Your task to perform on an android device: toggle translation in the chrome app Image 0: 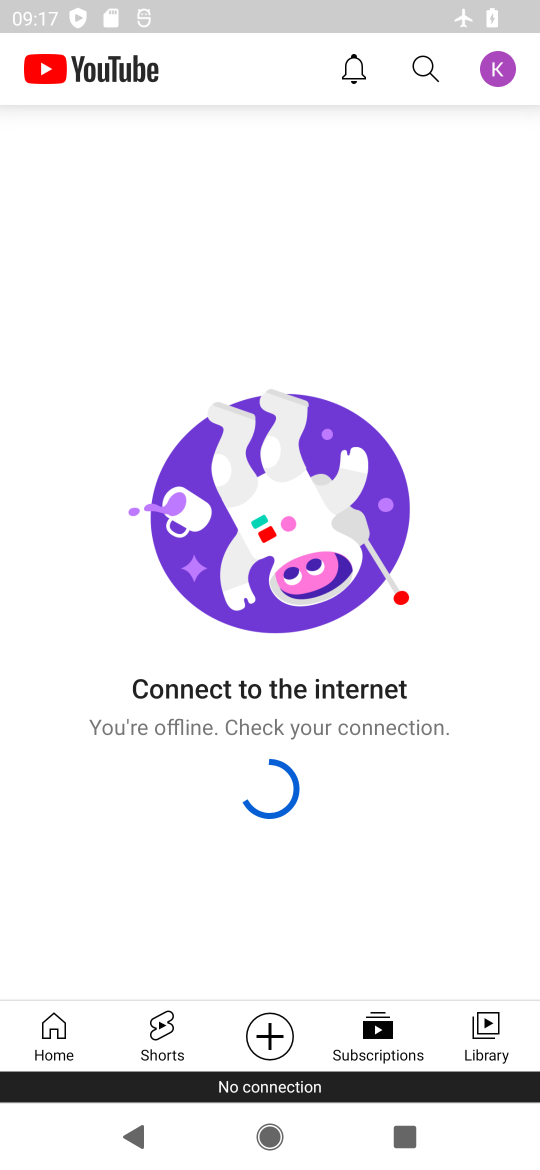
Step 0: press home button
Your task to perform on an android device: toggle translation in the chrome app Image 1: 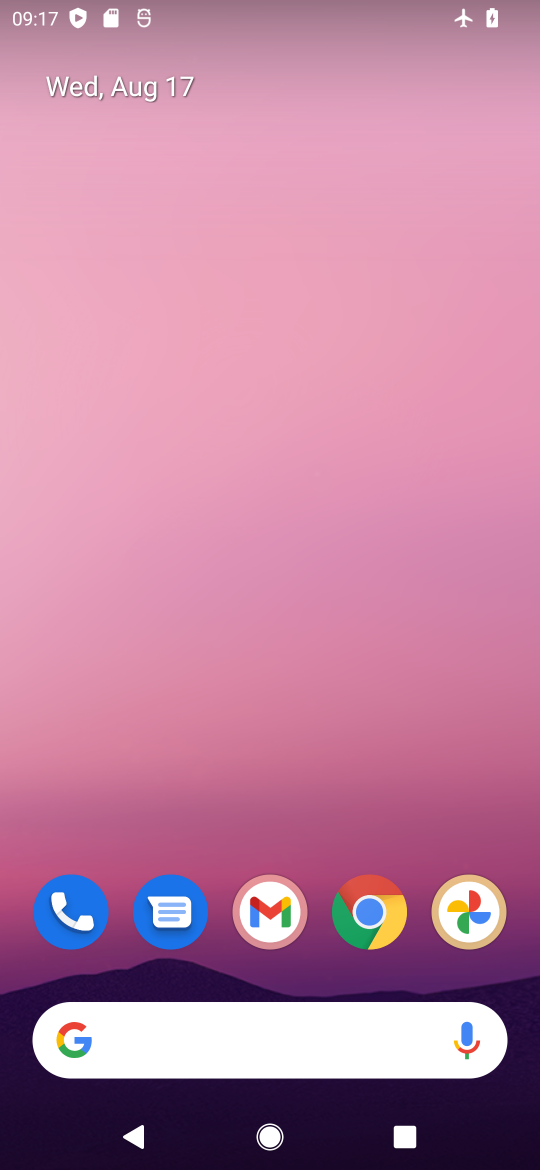
Step 1: drag from (188, 1004) to (174, 185)
Your task to perform on an android device: toggle translation in the chrome app Image 2: 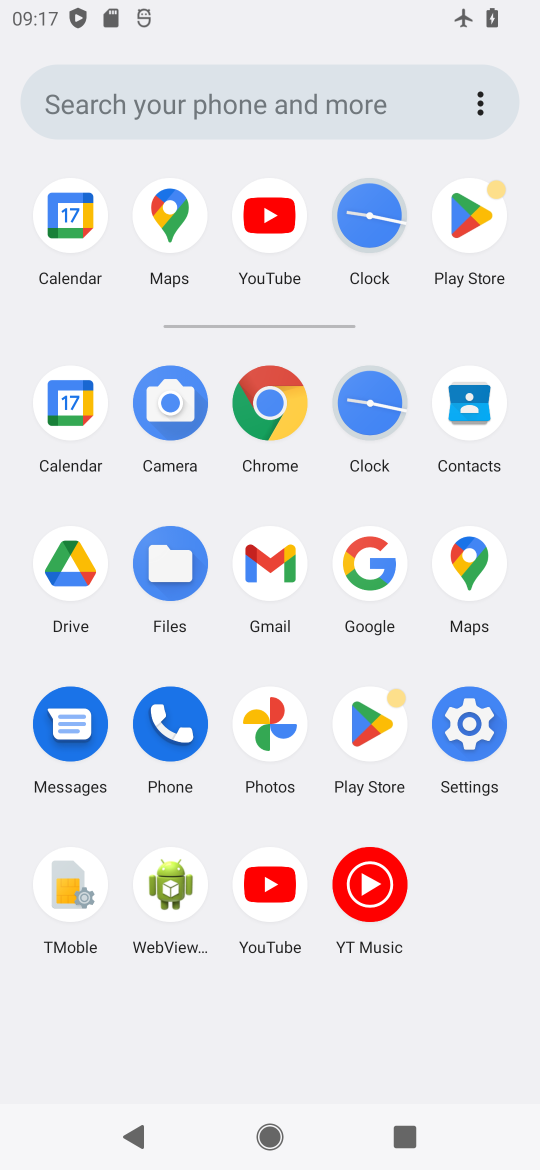
Step 2: click (269, 411)
Your task to perform on an android device: toggle translation in the chrome app Image 3: 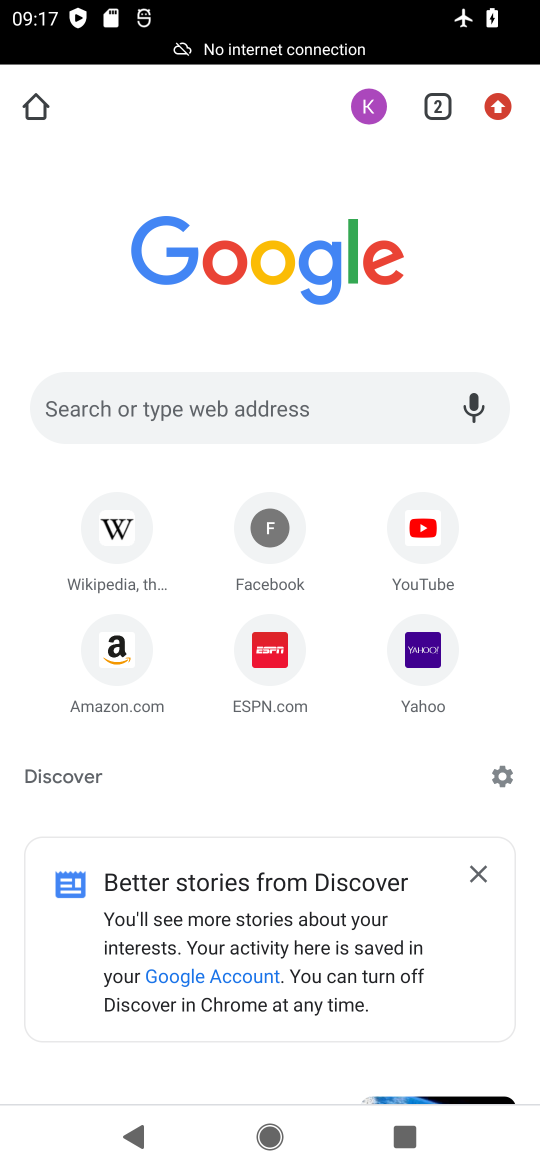
Step 3: click (493, 112)
Your task to perform on an android device: toggle translation in the chrome app Image 4: 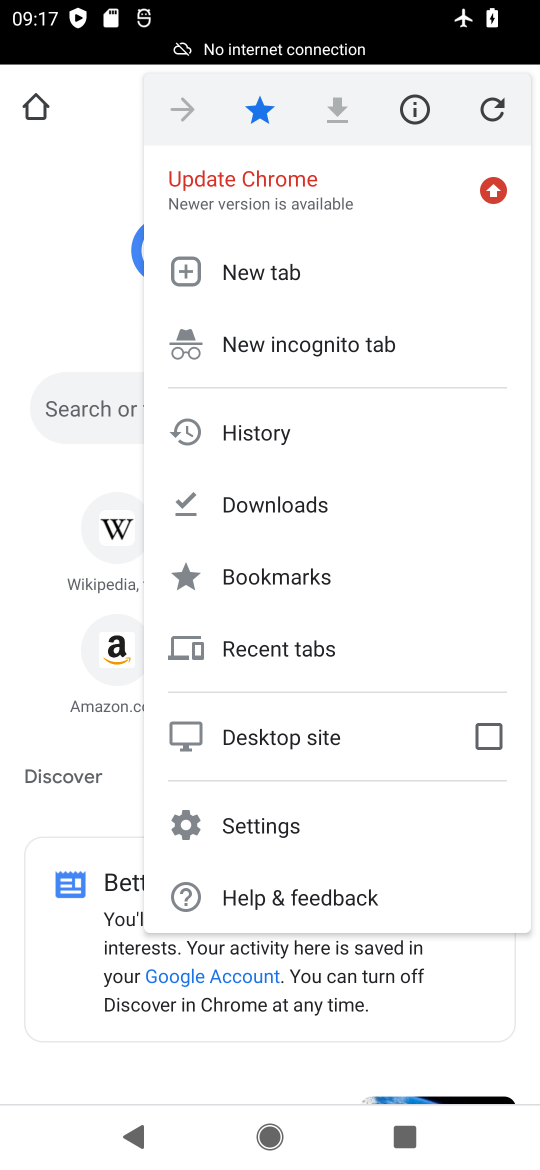
Step 4: click (227, 827)
Your task to perform on an android device: toggle translation in the chrome app Image 5: 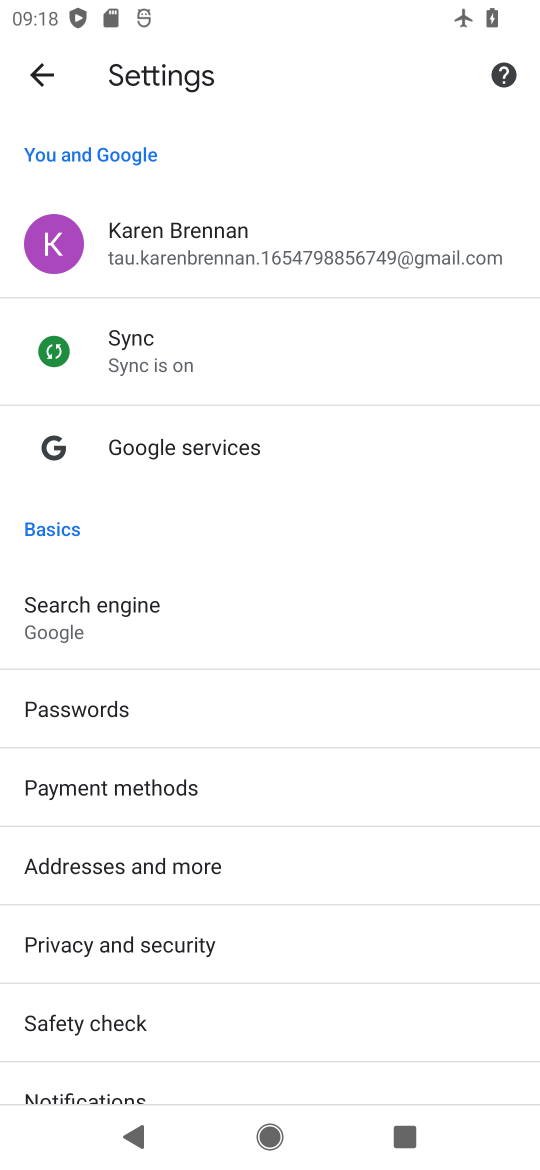
Step 5: drag from (116, 1040) to (115, 659)
Your task to perform on an android device: toggle translation in the chrome app Image 6: 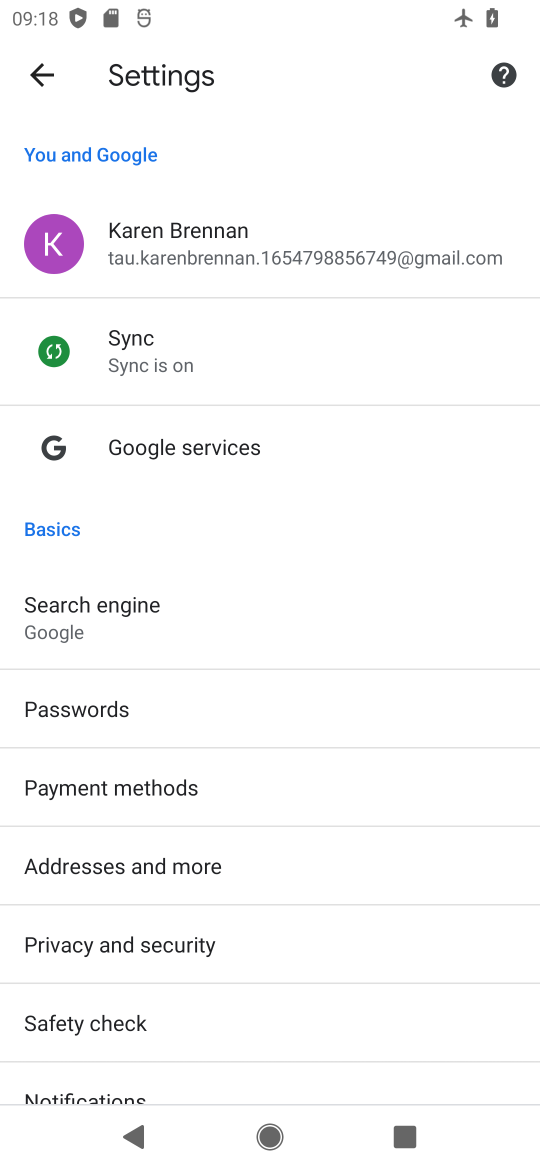
Step 6: drag from (105, 1049) to (101, 437)
Your task to perform on an android device: toggle translation in the chrome app Image 7: 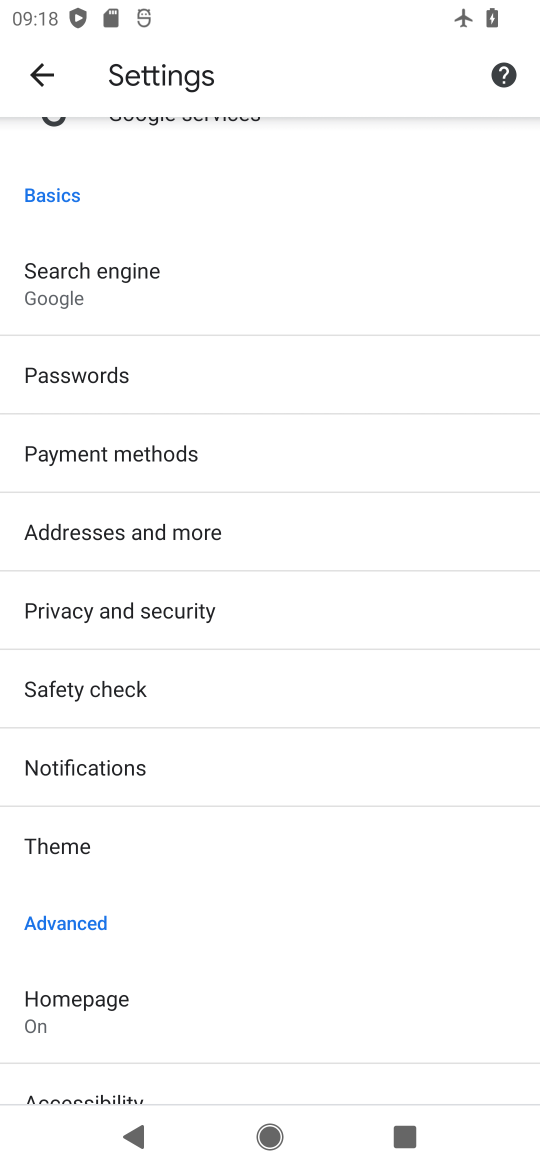
Step 7: drag from (99, 902) to (99, 399)
Your task to perform on an android device: toggle translation in the chrome app Image 8: 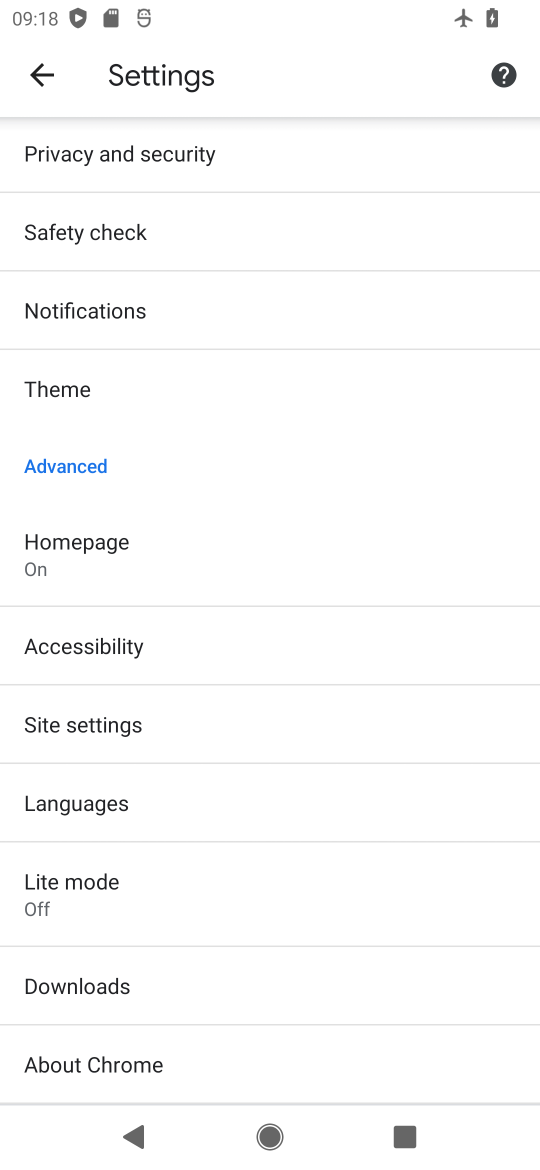
Step 8: click (31, 1071)
Your task to perform on an android device: toggle translation in the chrome app Image 9: 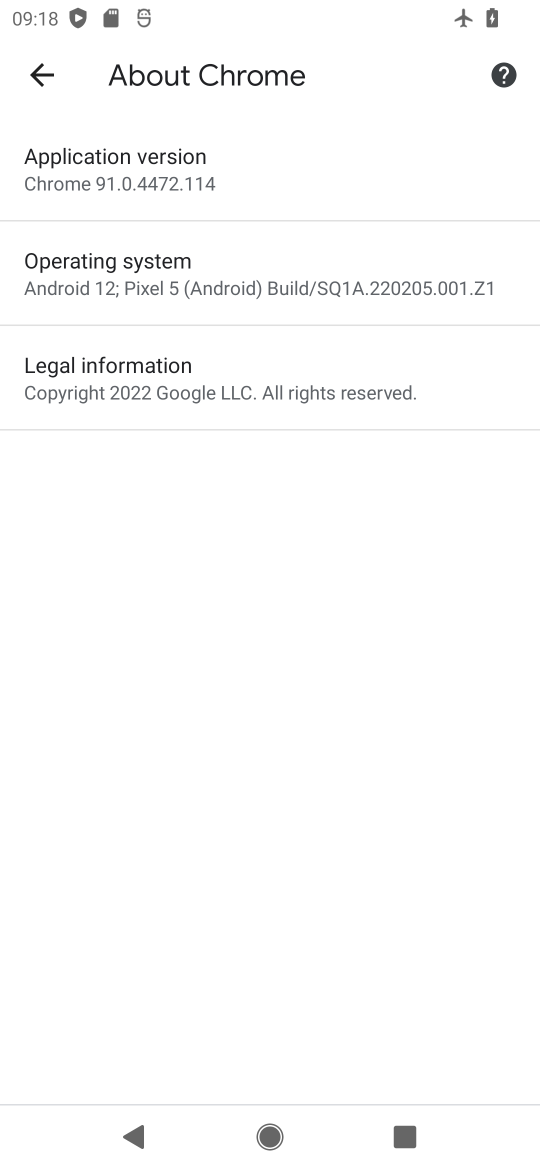
Step 9: click (22, 71)
Your task to perform on an android device: toggle translation in the chrome app Image 10: 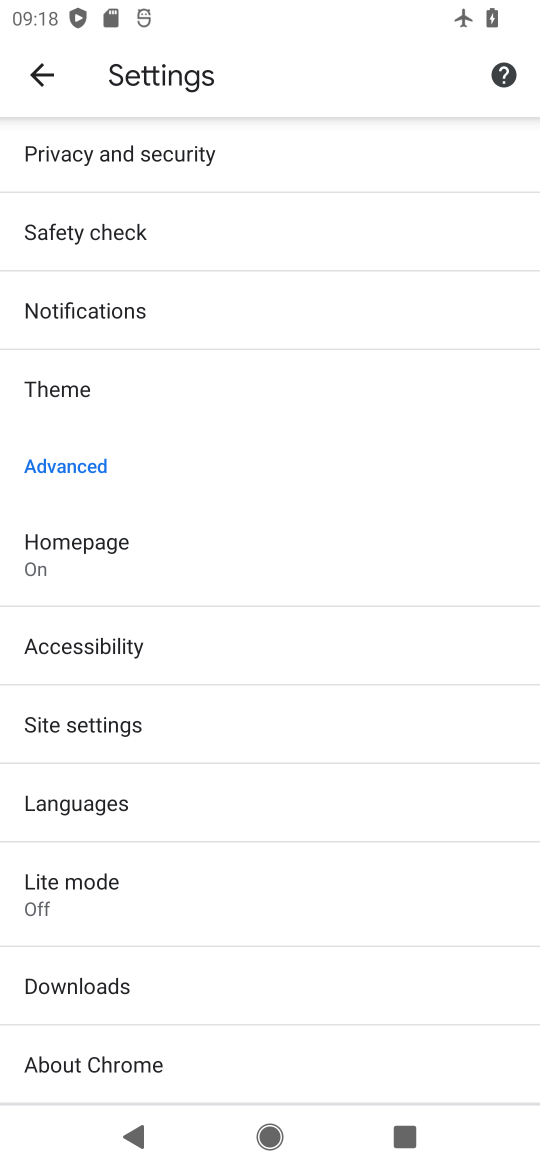
Step 10: click (51, 807)
Your task to perform on an android device: toggle translation in the chrome app Image 11: 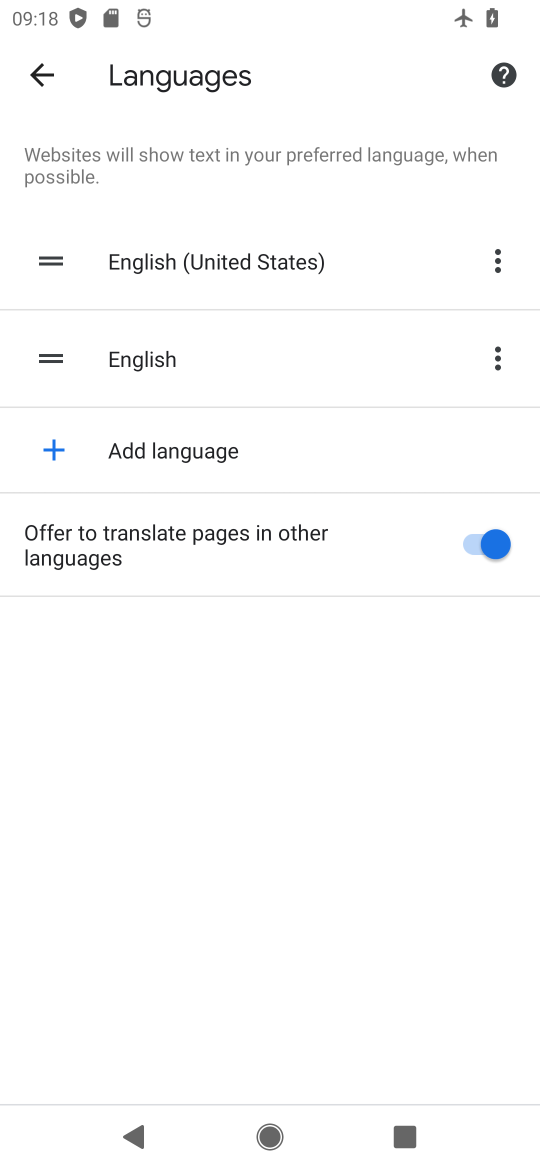
Step 11: click (464, 545)
Your task to perform on an android device: toggle translation in the chrome app Image 12: 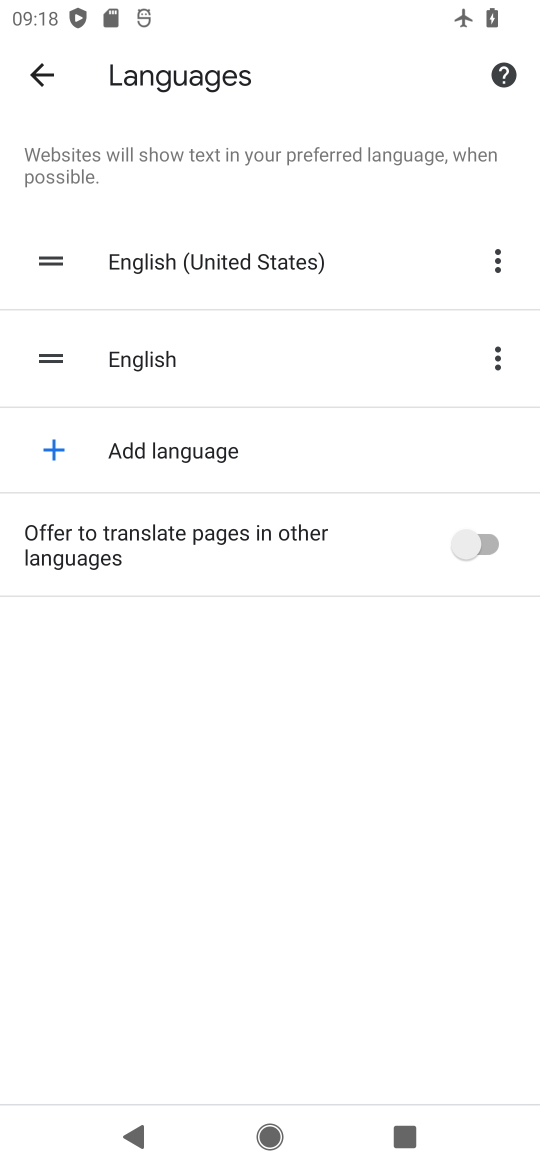
Step 12: task complete